Your task to perform on an android device: toggle location history Image 0: 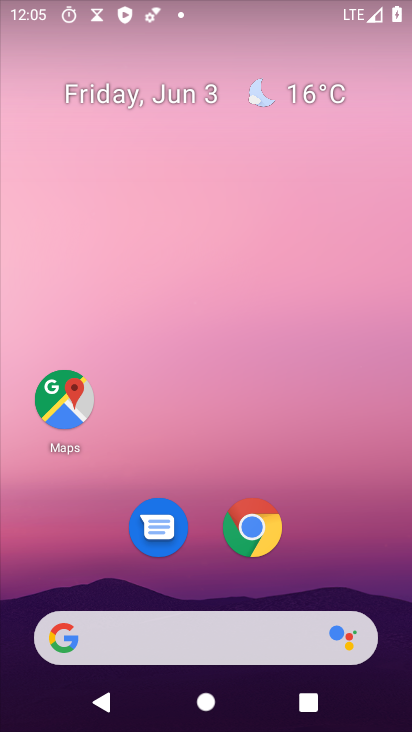
Step 0: drag from (211, 618) to (108, 295)
Your task to perform on an android device: toggle location history Image 1: 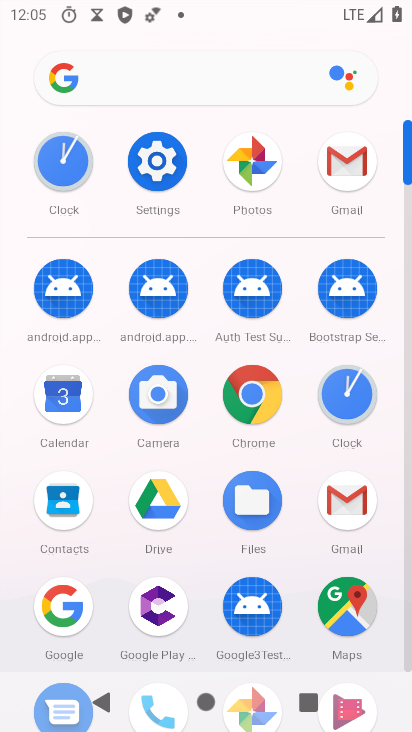
Step 1: click (145, 150)
Your task to perform on an android device: toggle location history Image 2: 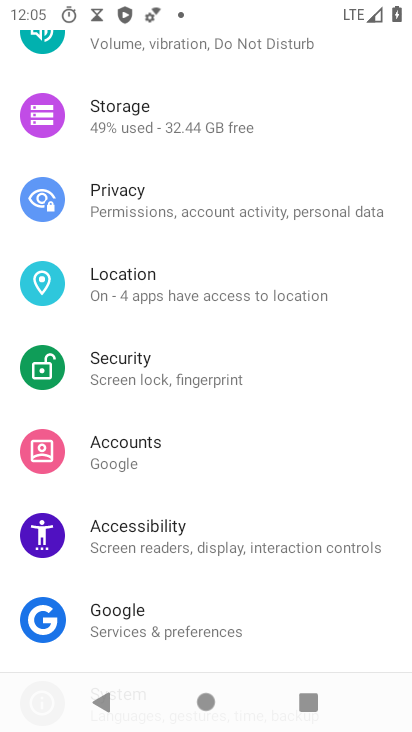
Step 2: click (144, 304)
Your task to perform on an android device: toggle location history Image 3: 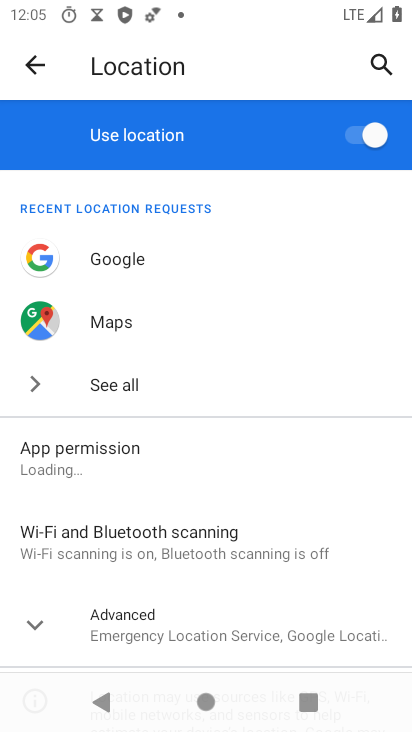
Step 3: click (166, 600)
Your task to perform on an android device: toggle location history Image 4: 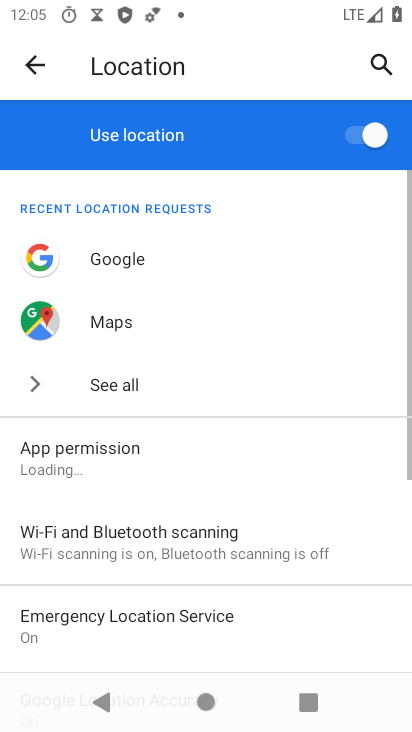
Step 4: drag from (166, 600) to (173, 148)
Your task to perform on an android device: toggle location history Image 5: 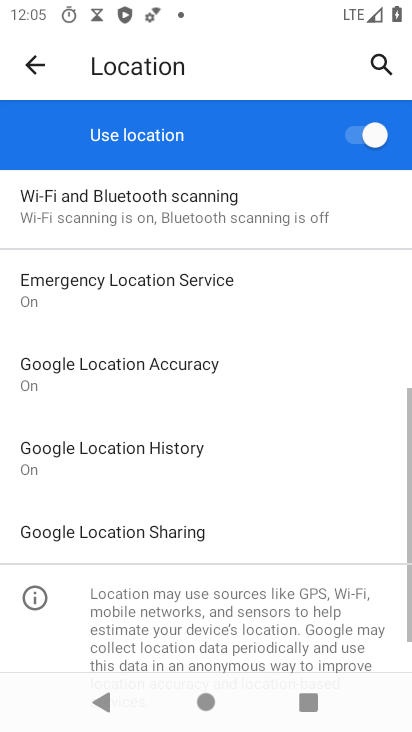
Step 5: click (186, 452)
Your task to perform on an android device: toggle location history Image 6: 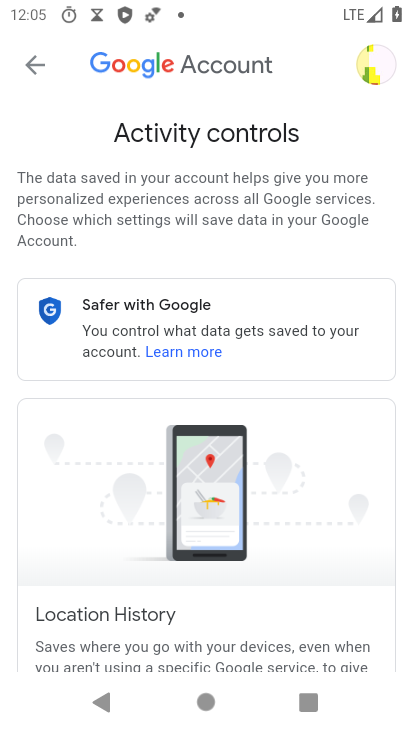
Step 6: drag from (300, 556) to (7, 226)
Your task to perform on an android device: toggle location history Image 7: 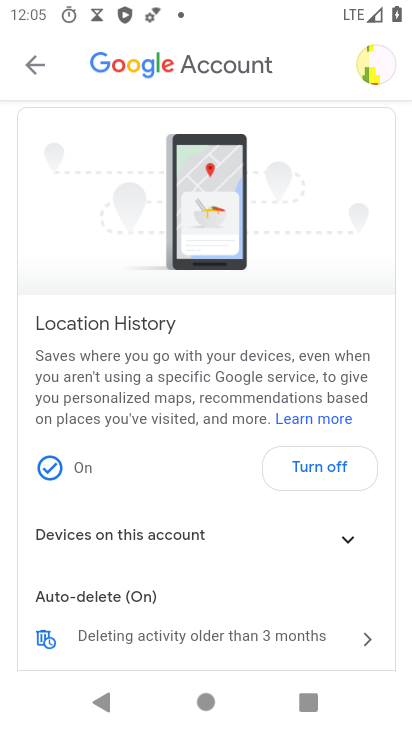
Step 7: click (304, 468)
Your task to perform on an android device: toggle location history Image 8: 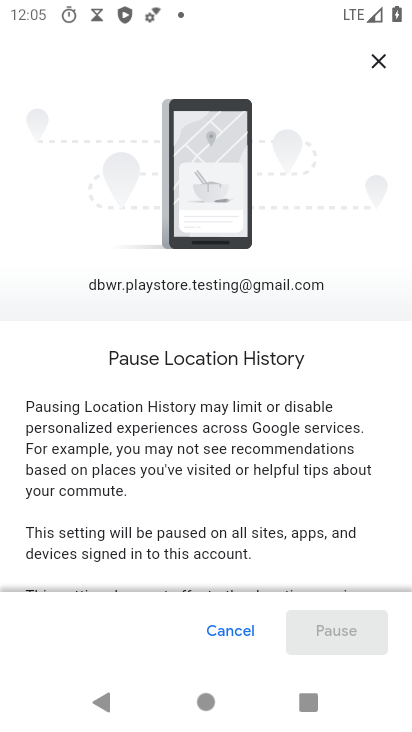
Step 8: drag from (271, 515) to (298, 103)
Your task to perform on an android device: toggle location history Image 9: 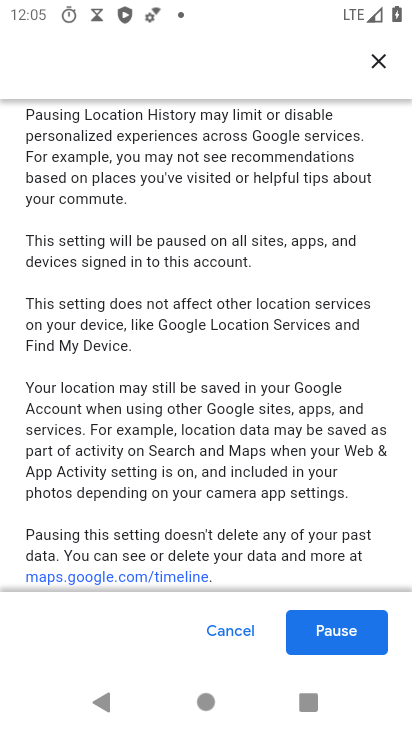
Step 9: click (326, 646)
Your task to perform on an android device: toggle location history Image 10: 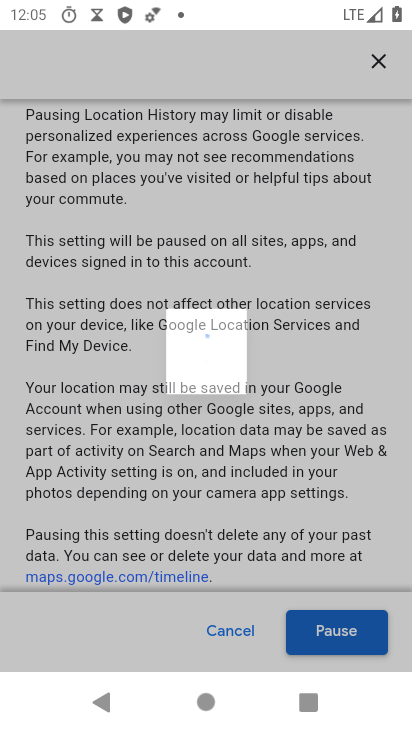
Step 10: click (330, 640)
Your task to perform on an android device: toggle location history Image 11: 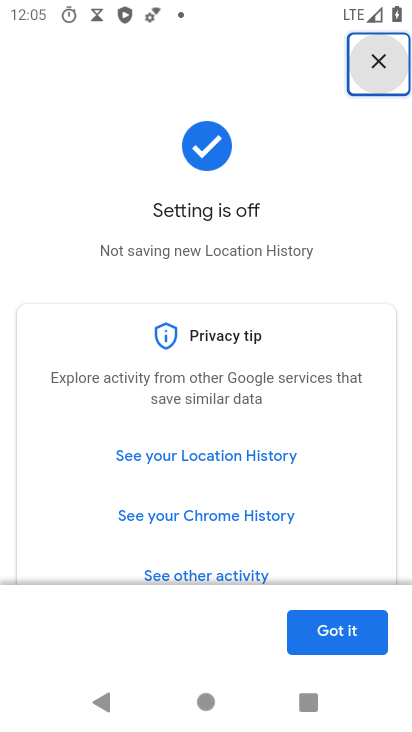
Step 11: click (330, 640)
Your task to perform on an android device: toggle location history Image 12: 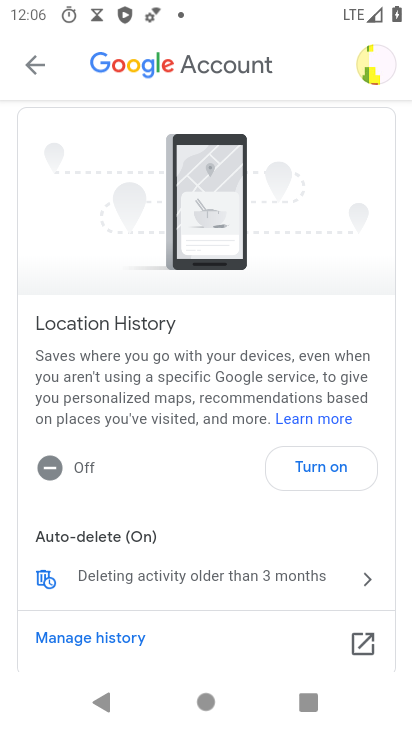
Step 12: task complete